Your task to perform on an android device: Search for logitech g933 on walmart, select the first entry, and add it to the cart. Image 0: 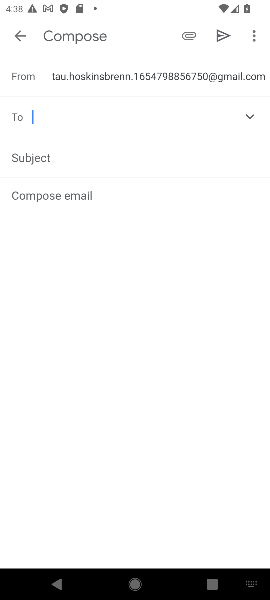
Step 0: press home button
Your task to perform on an android device: Search for logitech g933 on walmart, select the first entry, and add it to the cart. Image 1: 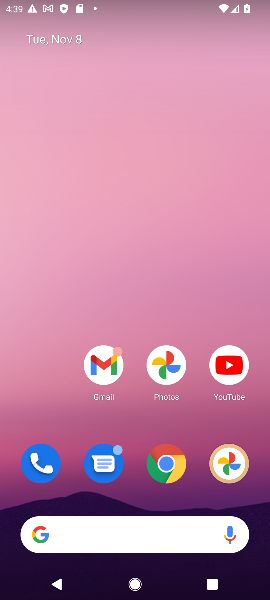
Step 1: click (168, 471)
Your task to perform on an android device: Search for logitech g933 on walmart, select the first entry, and add it to the cart. Image 2: 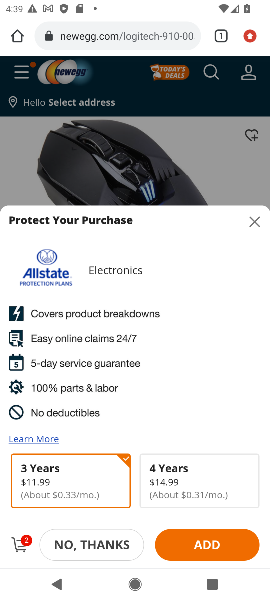
Step 2: click (108, 42)
Your task to perform on an android device: Search for logitech g933 on walmart, select the first entry, and add it to the cart. Image 3: 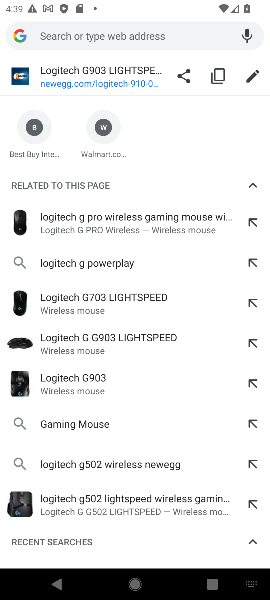
Step 3: click (100, 142)
Your task to perform on an android device: Search for logitech g933 on walmart, select the first entry, and add it to the cart. Image 4: 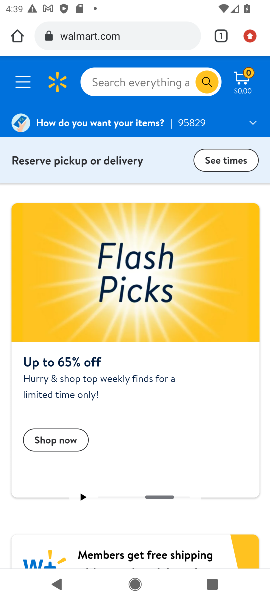
Step 4: click (149, 88)
Your task to perform on an android device: Search for logitech g933 on walmart, select the first entry, and add it to the cart. Image 5: 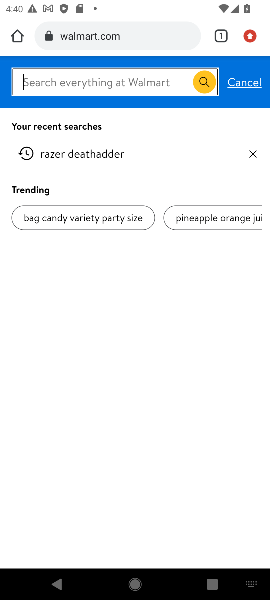
Step 5: click (149, 88)
Your task to perform on an android device: Search for logitech g933 on walmart, select the first entry, and add it to the cart. Image 6: 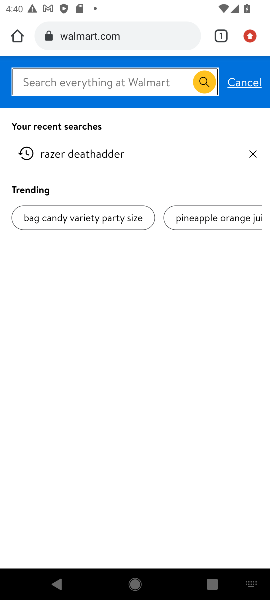
Step 6: type " logitech g933"
Your task to perform on an android device: Search for logitech g933 on walmart, select the first entry, and add it to the cart. Image 7: 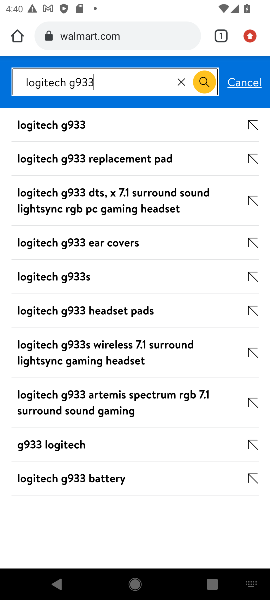
Step 7: click (207, 78)
Your task to perform on an android device: Search for logitech g933 on walmart, select the first entry, and add it to the cart. Image 8: 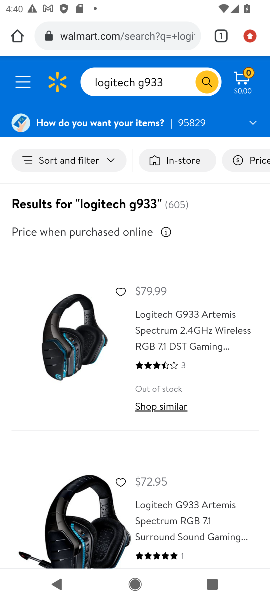
Step 8: click (145, 344)
Your task to perform on an android device: Search for logitech g933 on walmart, select the first entry, and add it to the cart. Image 9: 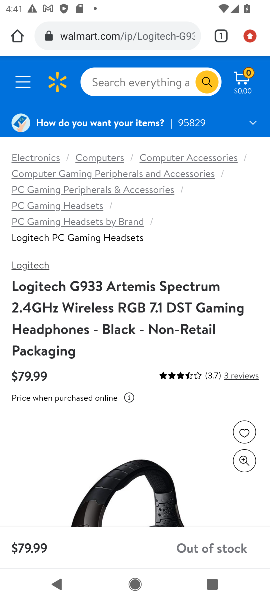
Step 9: task complete